Your task to perform on an android device: Open calendar and show me the fourth week of next month Image 0: 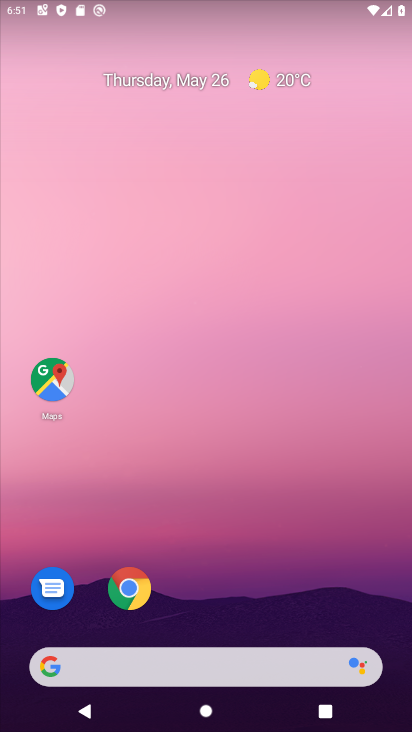
Step 0: drag from (338, 608) to (332, 41)
Your task to perform on an android device: Open calendar and show me the fourth week of next month Image 1: 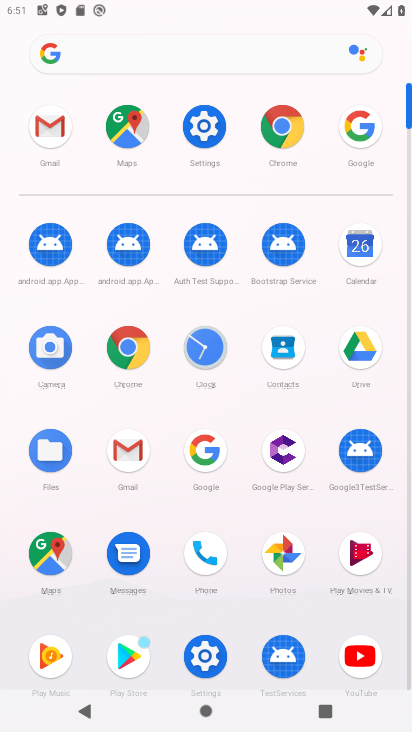
Step 1: click (355, 260)
Your task to perform on an android device: Open calendar and show me the fourth week of next month Image 2: 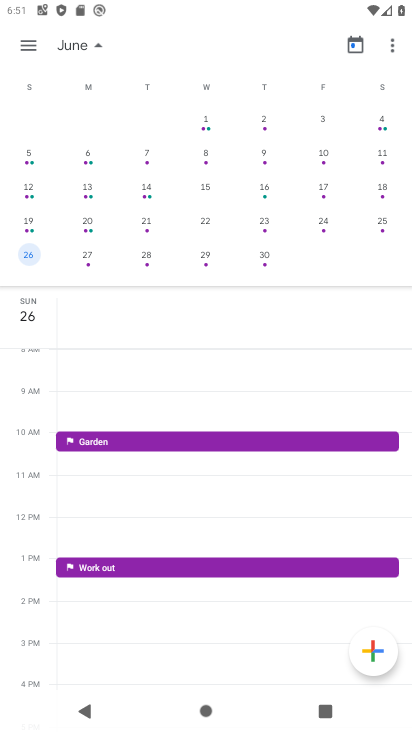
Step 2: drag from (385, 162) to (1, 149)
Your task to perform on an android device: Open calendar and show me the fourth week of next month Image 3: 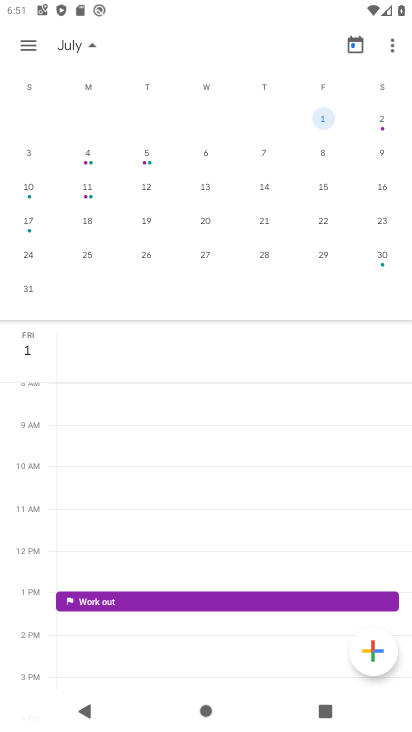
Step 3: click (377, 252)
Your task to perform on an android device: Open calendar and show me the fourth week of next month Image 4: 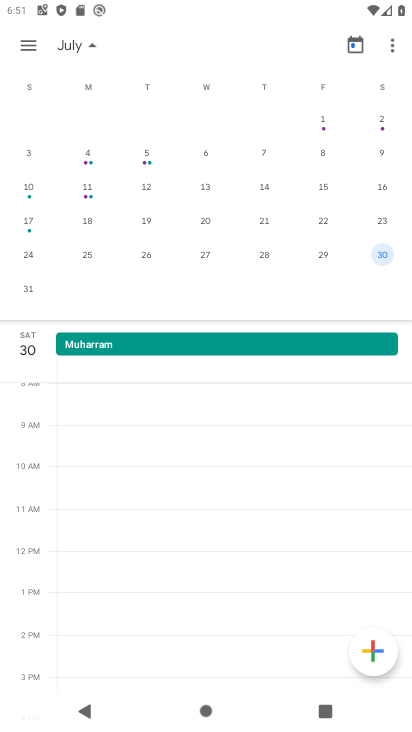
Step 4: task complete